Your task to perform on an android device: Open notification settings Image 0: 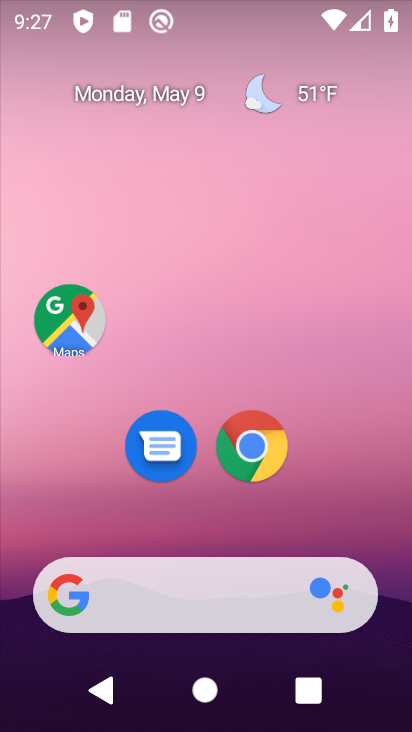
Step 0: drag from (320, 510) to (197, 16)
Your task to perform on an android device: Open notification settings Image 1: 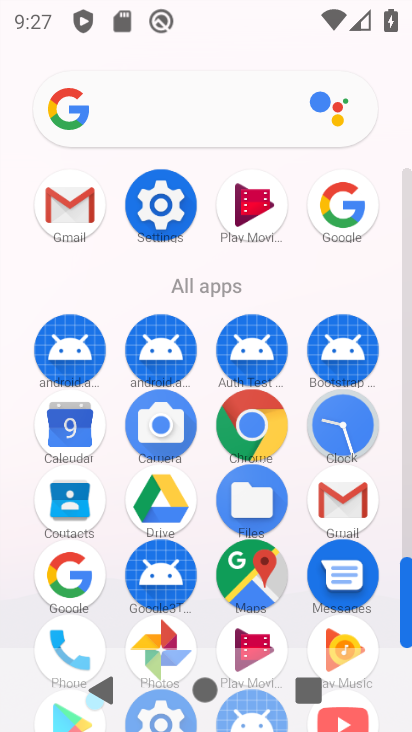
Step 1: click (166, 213)
Your task to perform on an android device: Open notification settings Image 2: 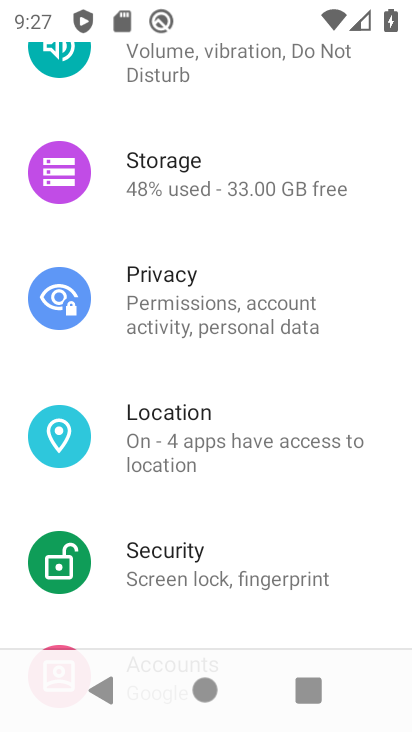
Step 2: drag from (243, 579) to (252, 226)
Your task to perform on an android device: Open notification settings Image 3: 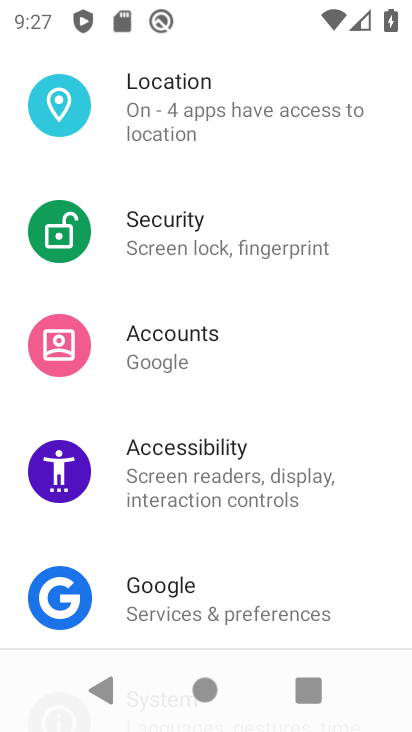
Step 3: drag from (312, 560) to (278, 67)
Your task to perform on an android device: Open notification settings Image 4: 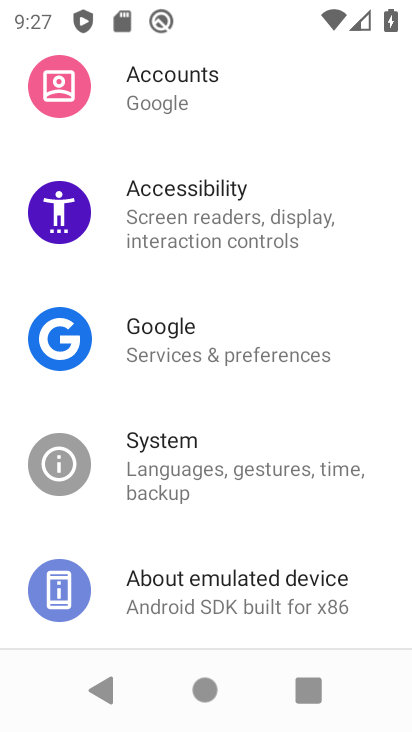
Step 4: drag from (245, 277) to (256, 703)
Your task to perform on an android device: Open notification settings Image 5: 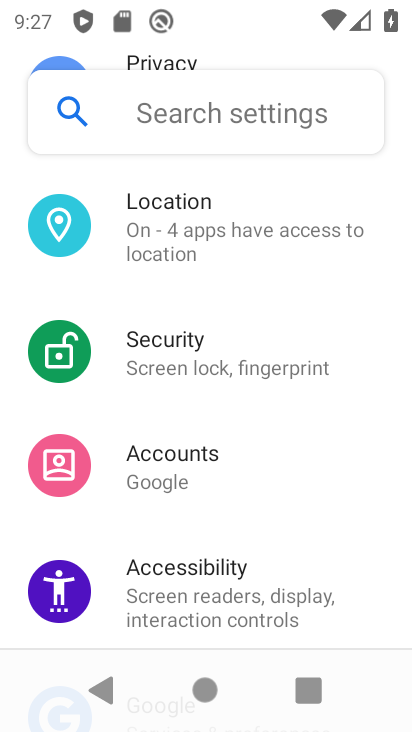
Step 5: drag from (255, 218) to (267, 560)
Your task to perform on an android device: Open notification settings Image 6: 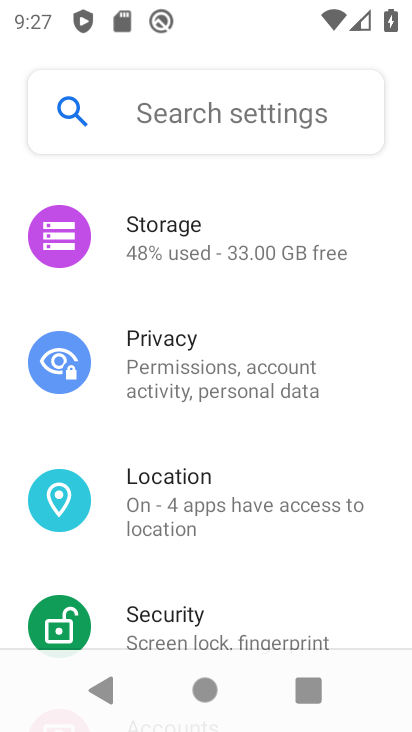
Step 6: drag from (265, 315) to (307, 576)
Your task to perform on an android device: Open notification settings Image 7: 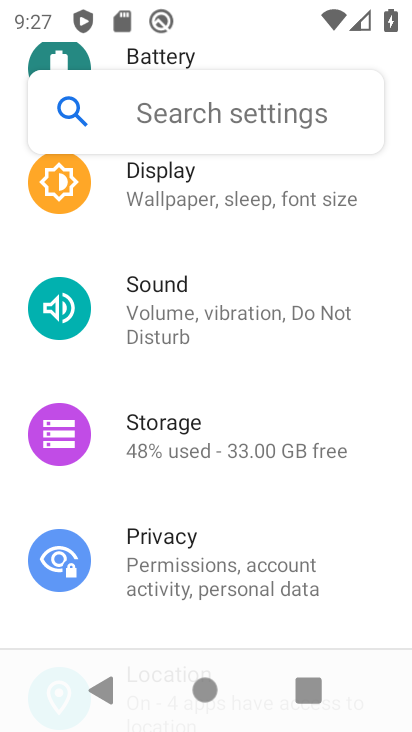
Step 7: drag from (246, 198) to (210, 597)
Your task to perform on an android device: Open notification settings Image 8: 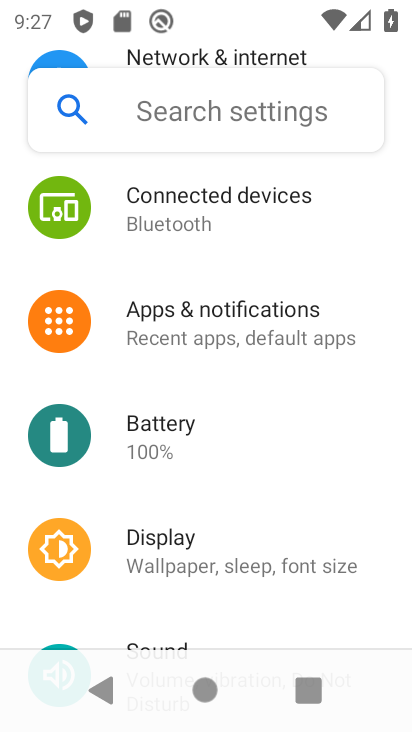
Step 8: click (255, 319)
Your task to perform on an android device: Open notification settings Image 9: 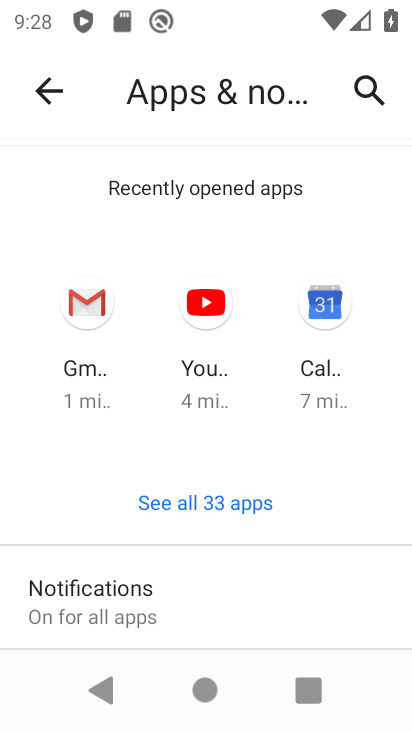
Step 9: drag from (281, 587) to (264, 241)
Your task to perform on an android device: Open notification settings Image 10: 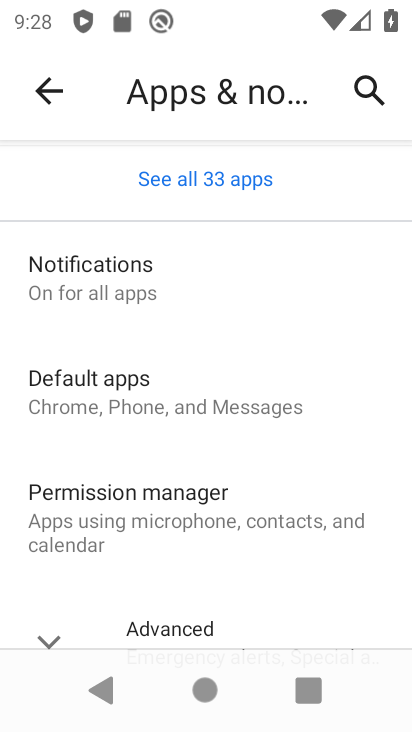
Step 10: click (120, 280)
Your task to perform on an android device: Open notification settings Image 11: 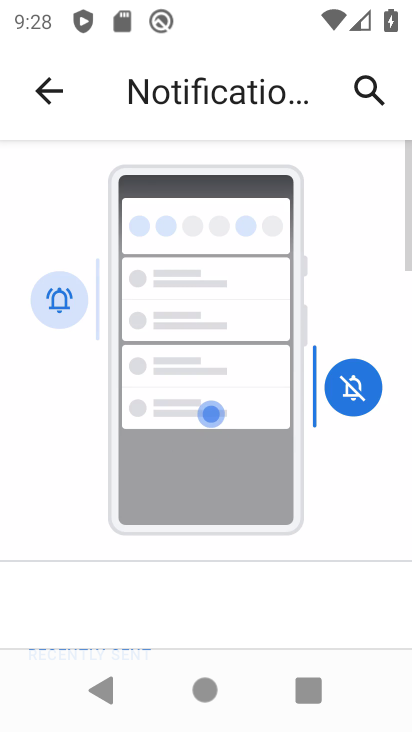
Step 11: task complete